Your task to perform on an android device: Is it going to rain tomorrow? Image 0: 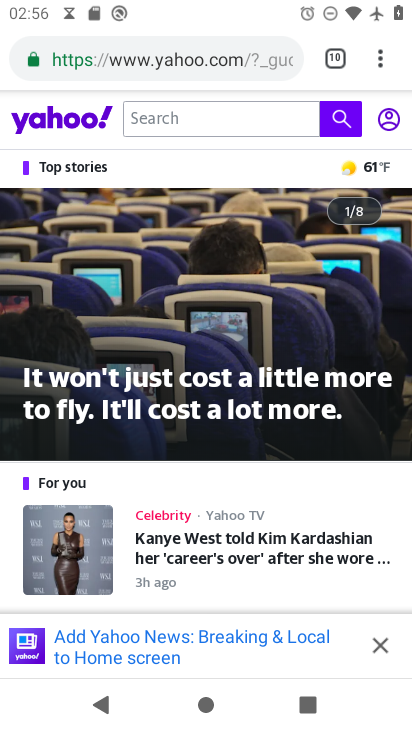
Step 0: press home button
Your task to perform on an android device: Is it going to rain tomorrow? Image 1: 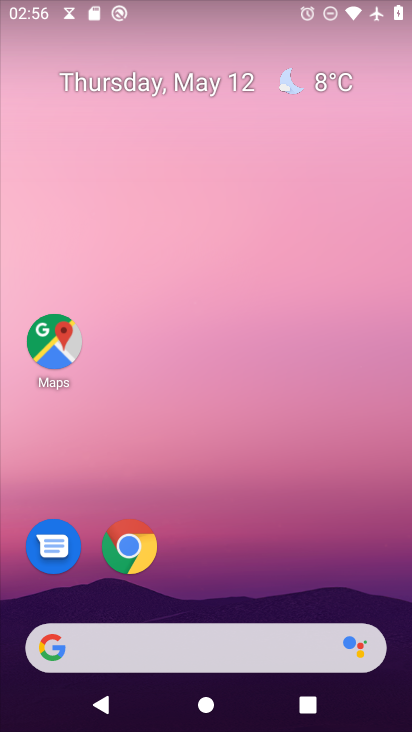
Step 1: click (323, 83)
Your task to perform on an android device: Is it going to rain tomorrow? Image 2: 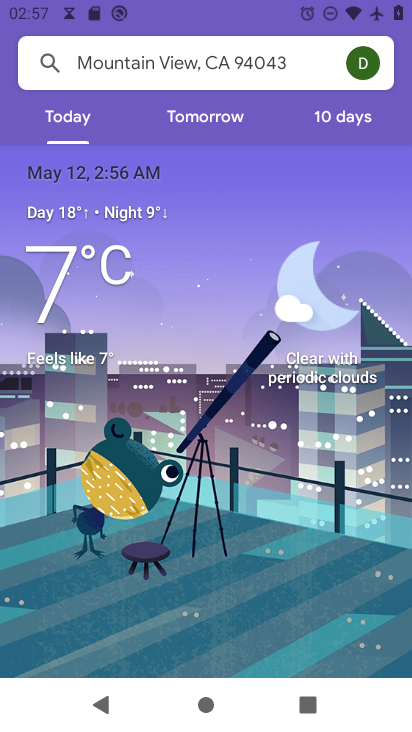
Step 2: click (221, 115)
Your task to perform on an android device: Is it going to rain tomorrow? Image 3: 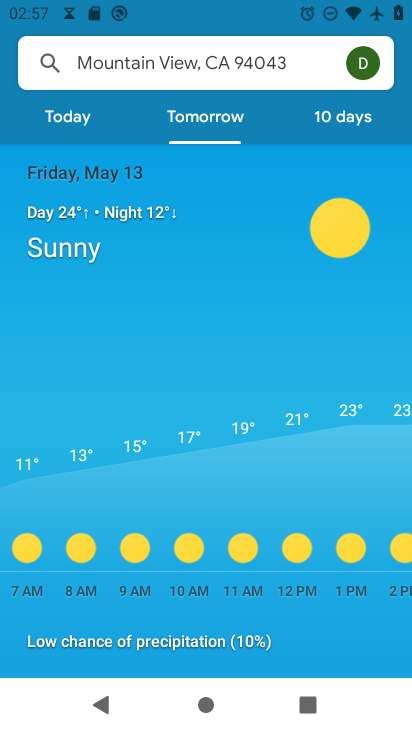
Step 3: task complete